Your task to perform on an android device: Go to Amazon Image 0: 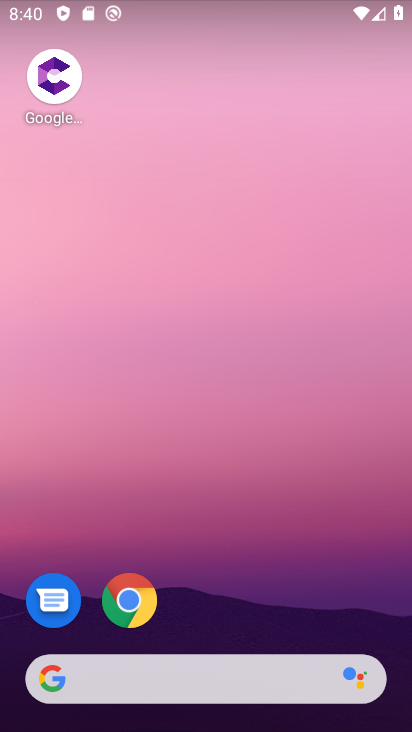
Step 0: click (127, 610)
Your task to perform on an android device: Go to Amazon Image 1: 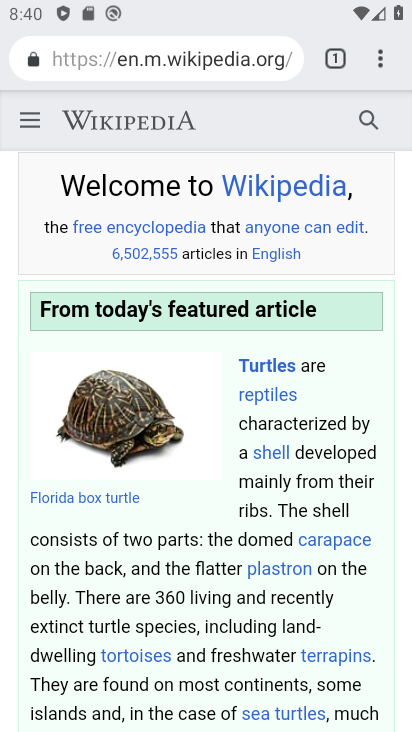
Step 1: click (211, 65)
Your task to perform on an android device: Go to Amazon Image 2: 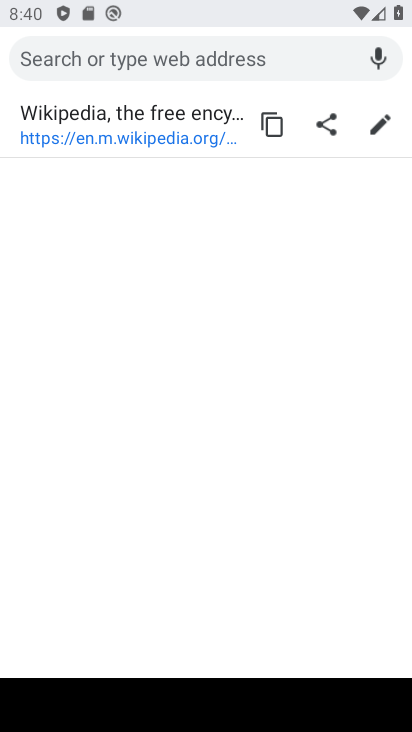
Step 2: type "amazon"
Your task to perform on an android device: Go to Amazon Image 3: 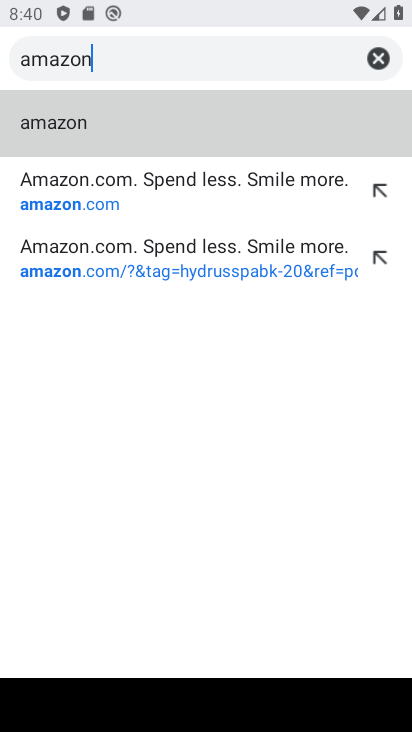
Step 3: click (43, 129)
Your task to perform on an android device: Go to Amazon Image 4: 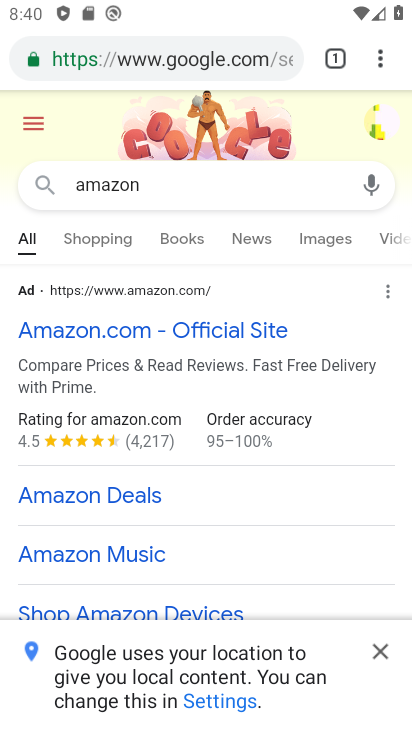
Step 4: click (126, 334)
Your task to perform on an android device: Go to Amazon Image 5: 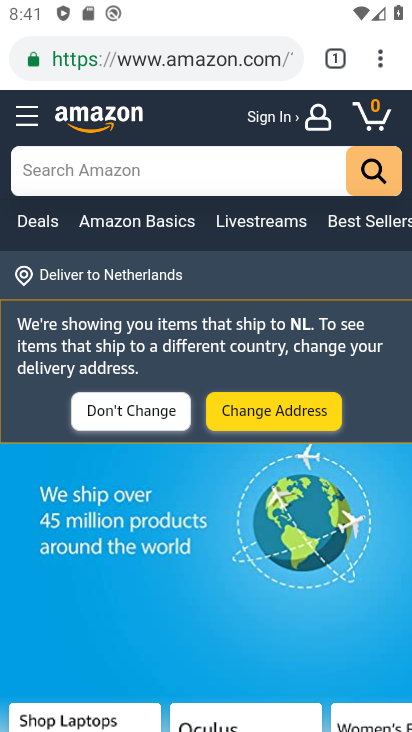
Step 5: task complete